Your task to perform on an android device: Look up the best rated gaming chairs on Target. Image 0: 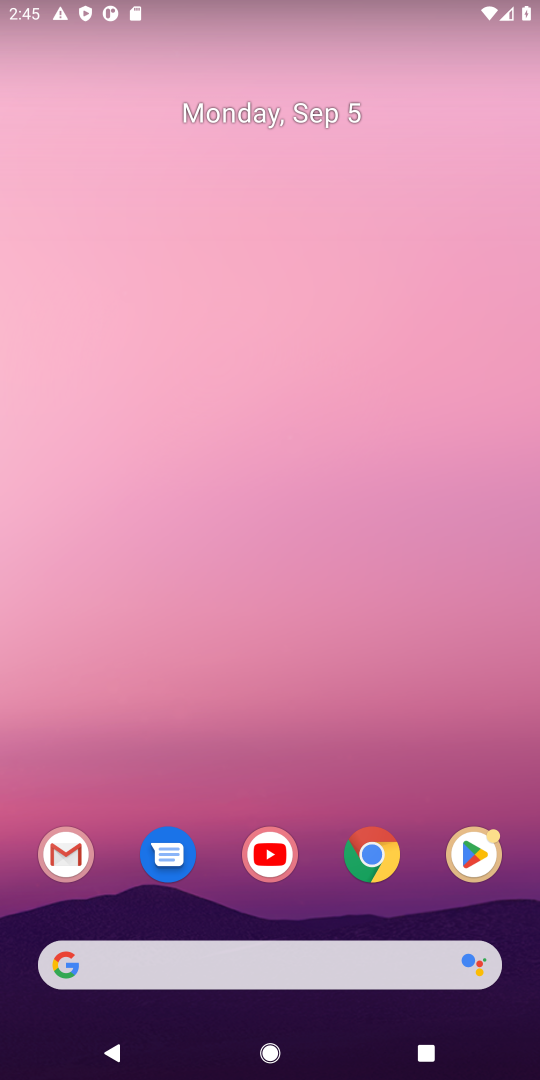
Step 0: click (396, 961)
Your task to perform on an android device: Look up the best rated gaming chairs on Target. Image 1: 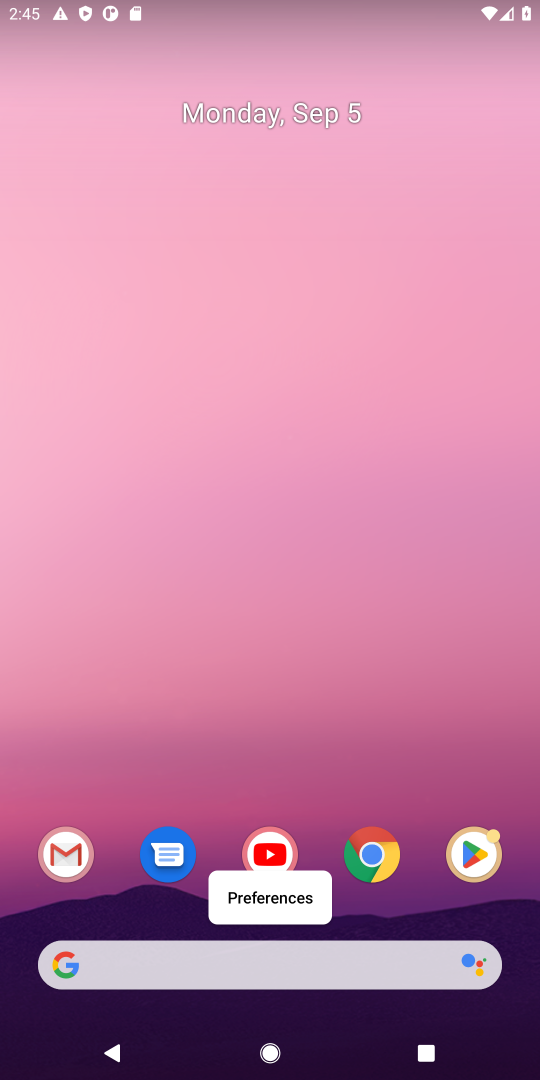
Step 1: click (192, 970)
Your task to perform on an android device: Look up the best rated gaming chairs on Target. Image 2: 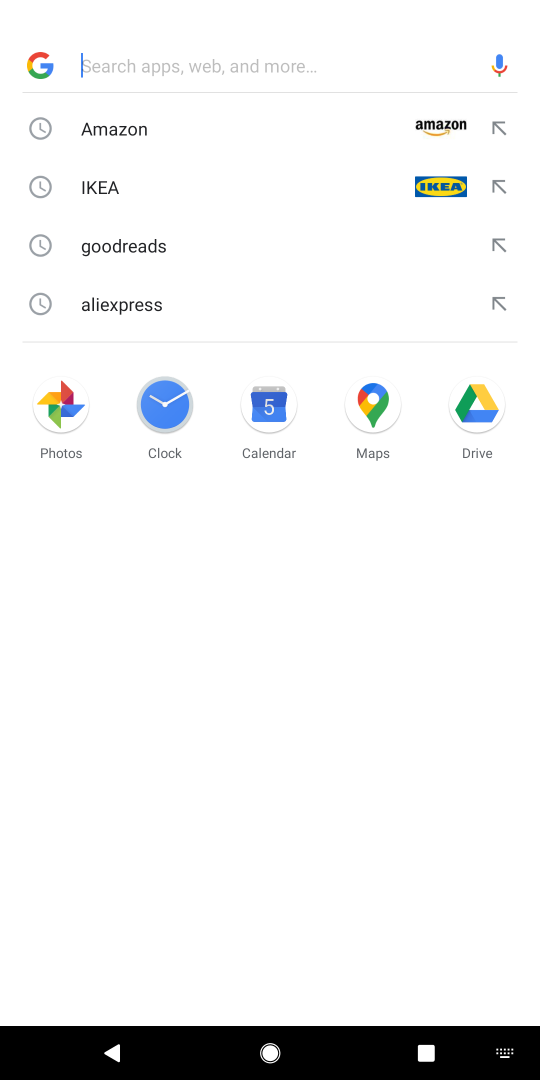
Step 2: press enter
Your task to perform on an android device: Look up the best rated gaming chairs on Target. Image 3: 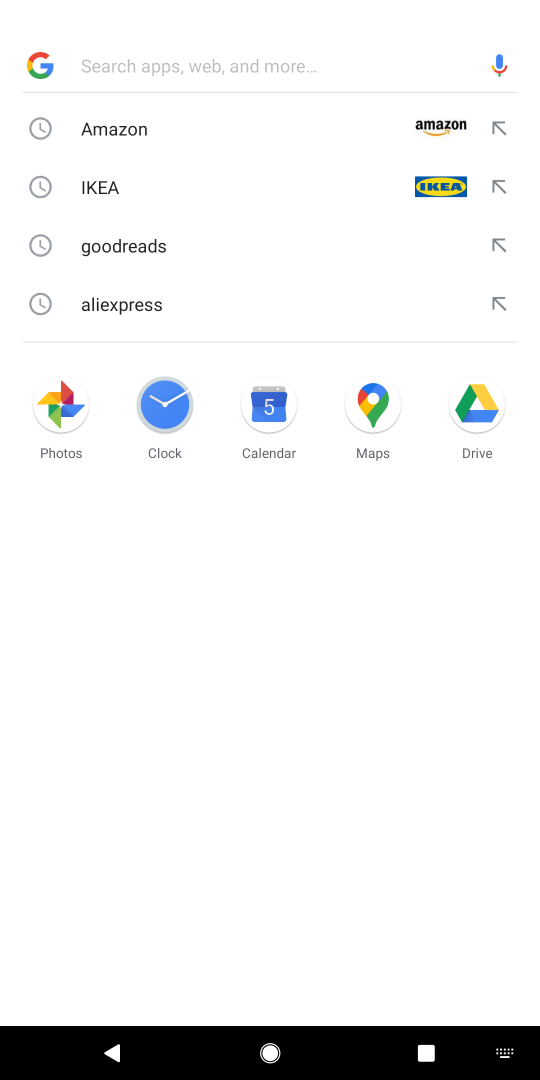
Step 3: type "target"
Your task to perform on an android device: Look up the best rated gaming chairs on Target. Image 4: 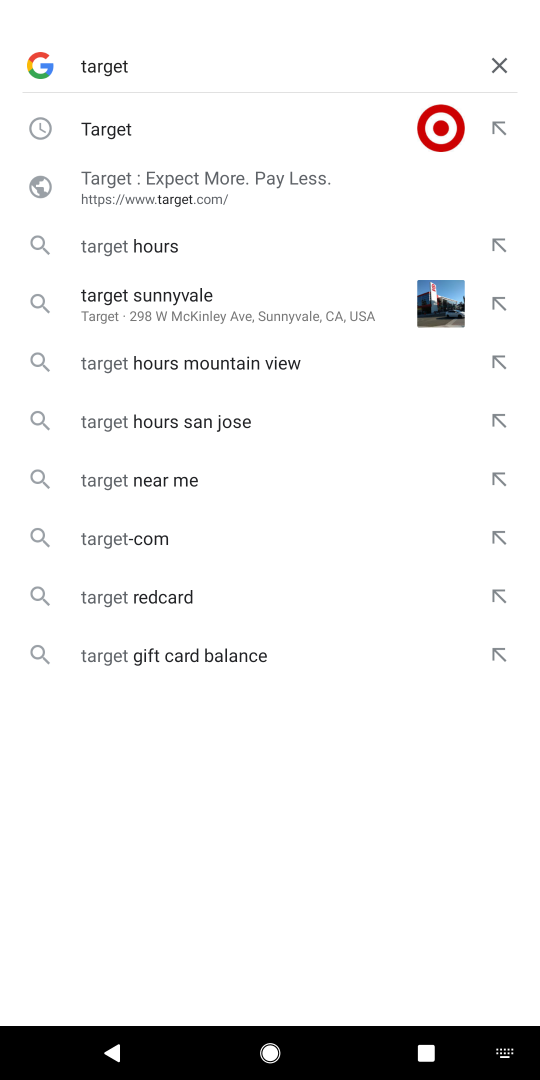
Step 4: click (189, 119)
Your task to perform on an android device: Look up the best rated gaming chairs on Target. Image 5: 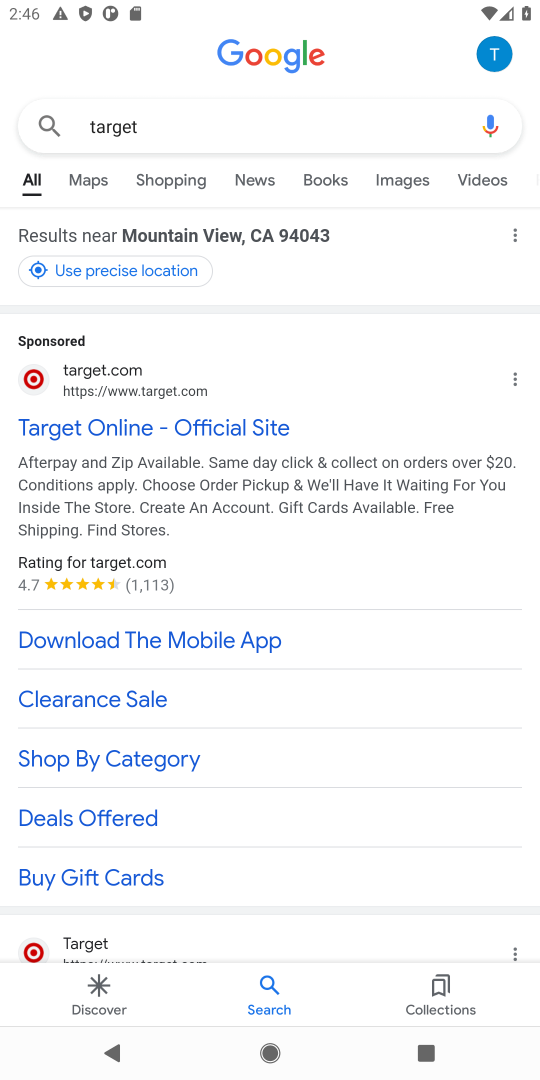
Step 5: click (180, 431)
Your task to perform on an android device: Look up the best rated gaming chairs on Target. Image 6: 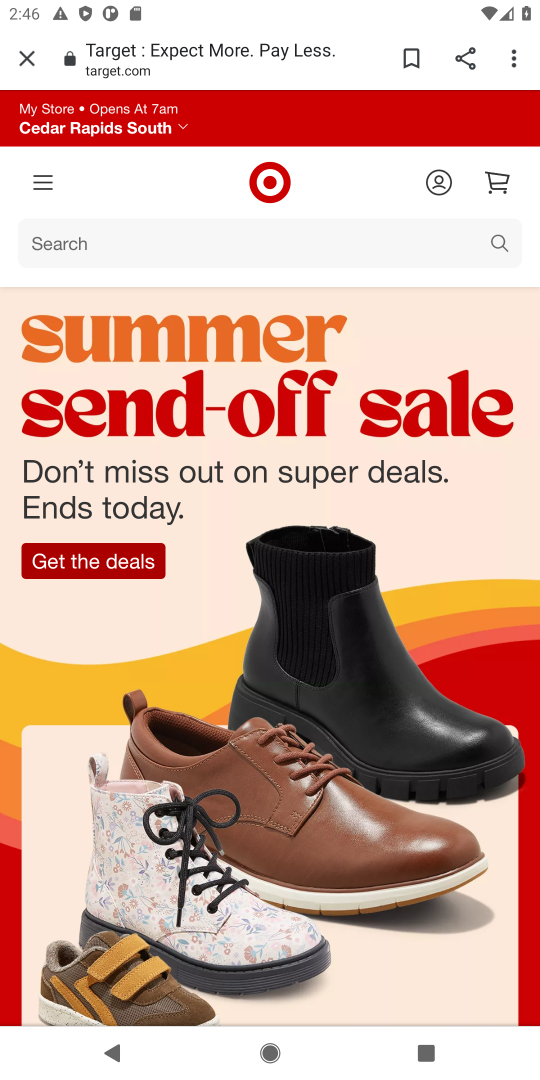
Step 6: click (90, 238)
Your task to perform on an android device: Look up the best rated gaming chairs on Target. Image 7: 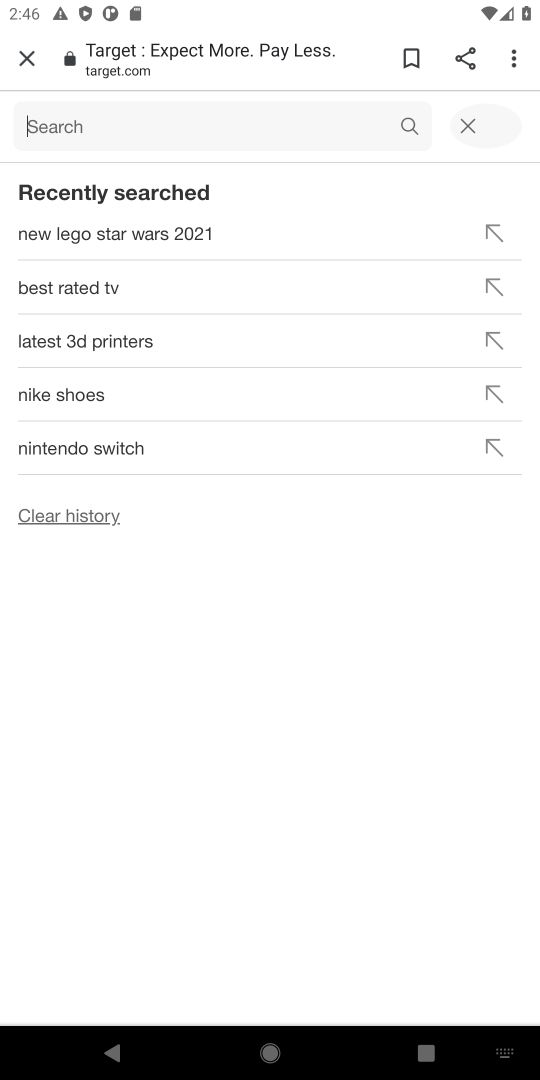
Step 7: press enter
Your task to perform on an android device: Look up the best rated gaming chairs on Target. Image 8: 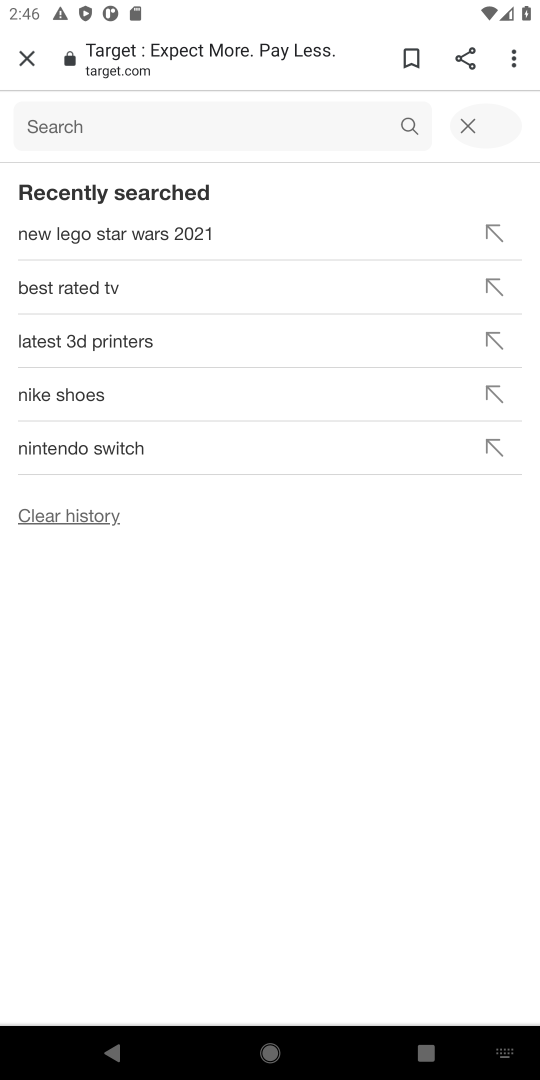
Step 8: type "best rated gaming chairs"
Your task to perform on an android device: Look up the best rated gaming chairs on Target. Image 9: 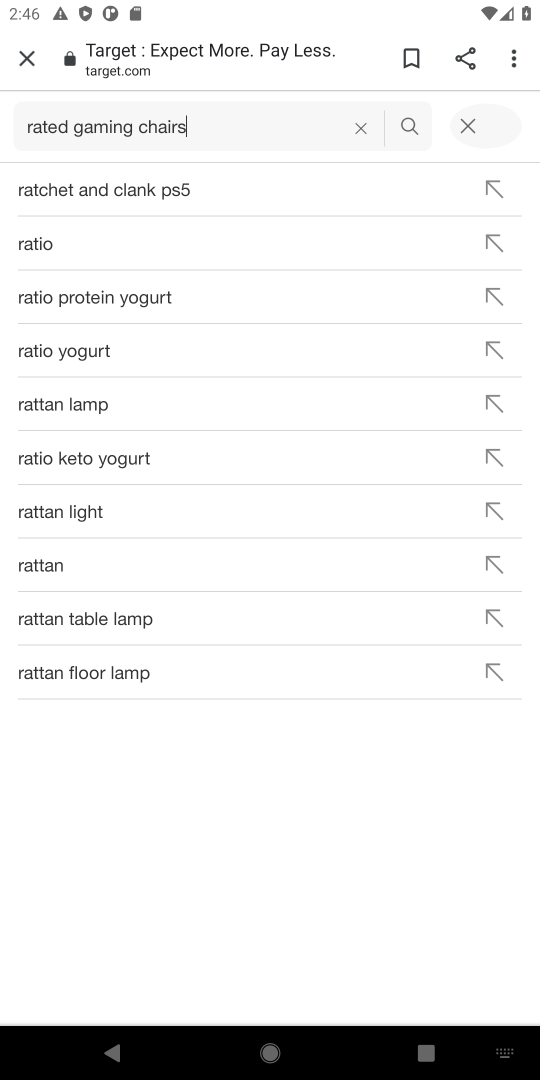
Step 9: click (414, 118)
Your task to perform on an android device: Look up the best rated gaming chairs on Target. Image 10: 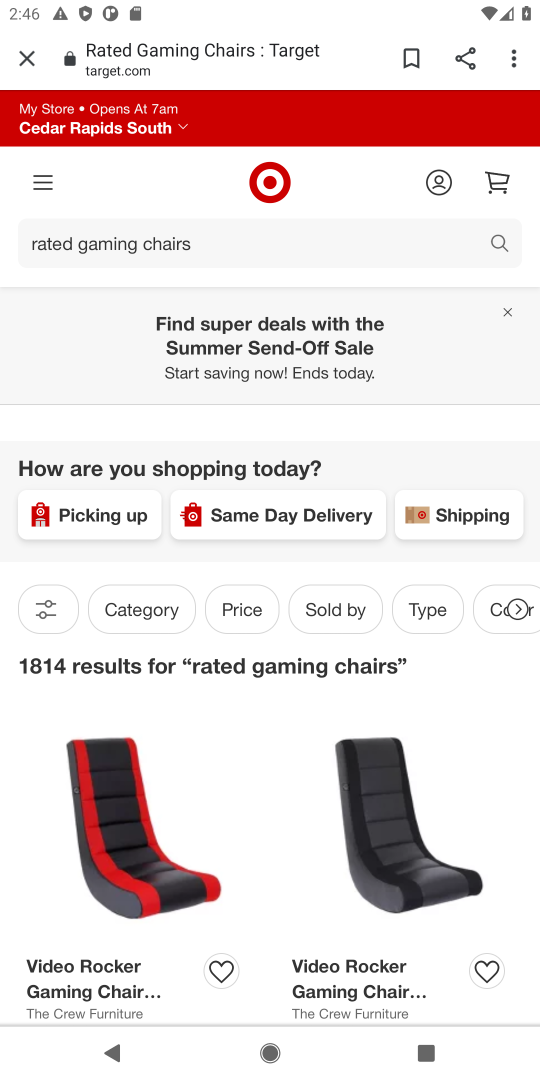
Step 10: task complete